Your task to perform on an android device: change the clock display to show seconds Image 0: 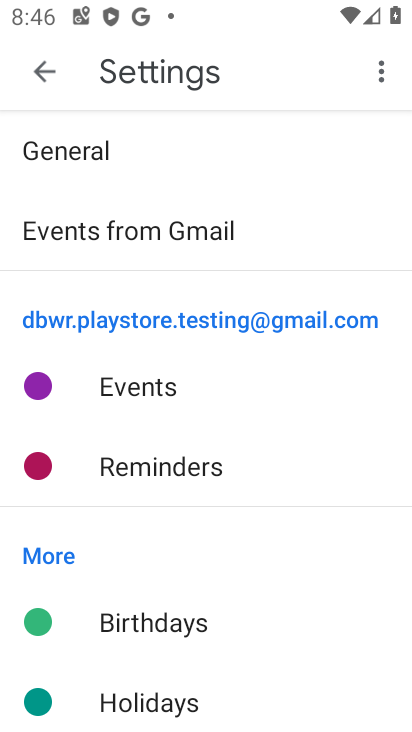
Step 0: press home button
Your task to perform on an android device: change the clock display to show seconds Image 1: 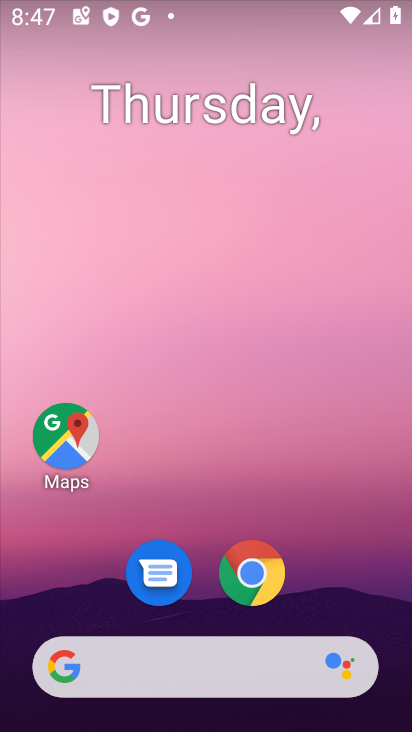
Step 1: drag from (377, 562) to (319, 194)
Your task to perform on an android device: change the clock display to show seconds Image 2: 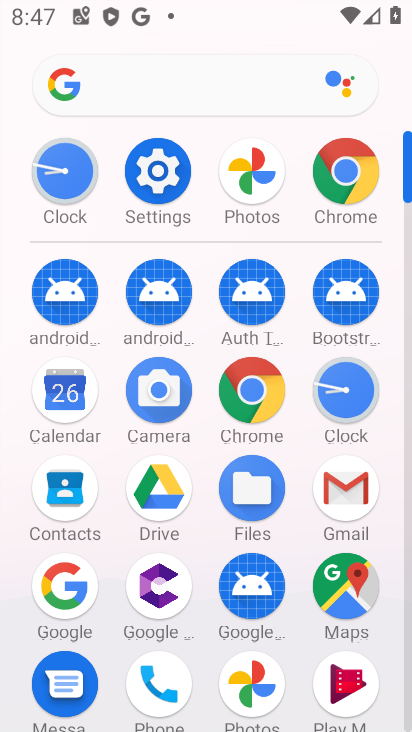
Step 2: click (358, 381)
Your task to perform on an android device: change the clock display to show seconds Image 3: 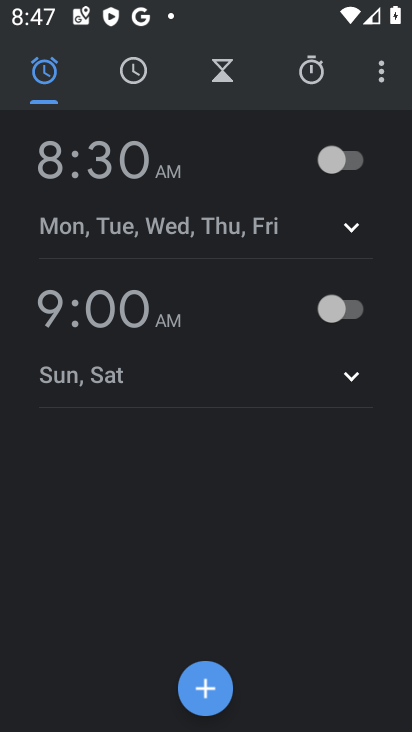
Step 3: drag from (380, 87) to (211, 140)
Your task to perform on an android device: change the clock display to show seconds Image 4: 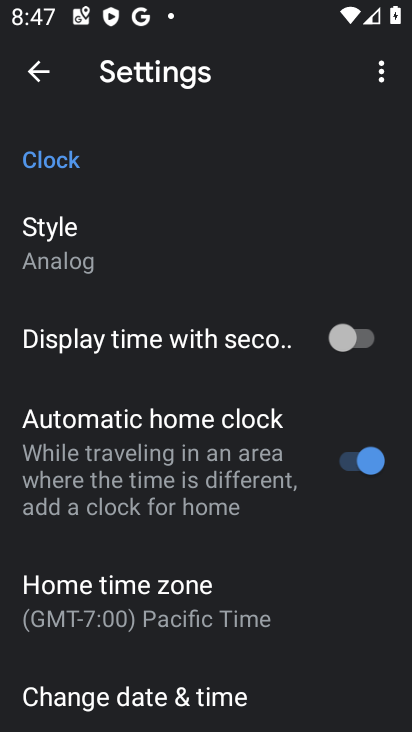
Step 4: click (361, 348)
Your task to perform on an android device: change the clock display to show seconds Image 5: 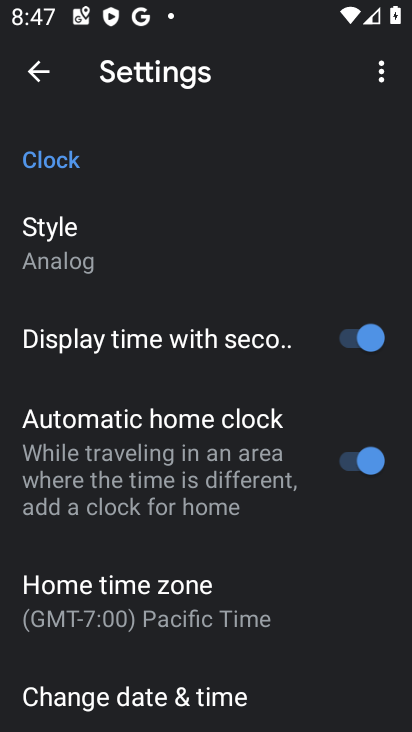
Step 5: task complete